Your task to perform on an android device: Open Reddit.com Image 0: 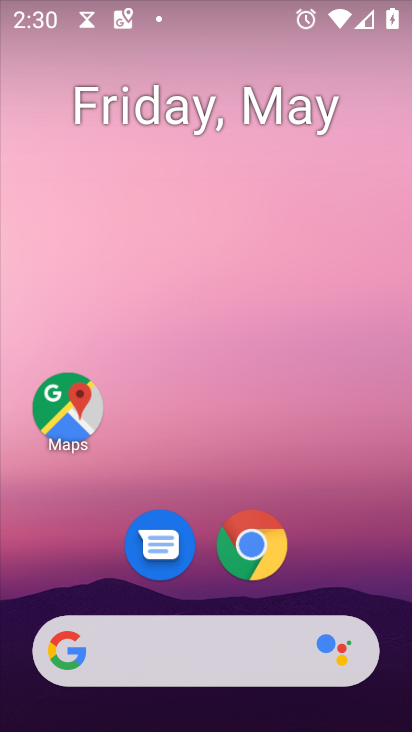
Step 0: click (257, 541)
Your task to perform on an android device: Open Reddit.com Image 1: 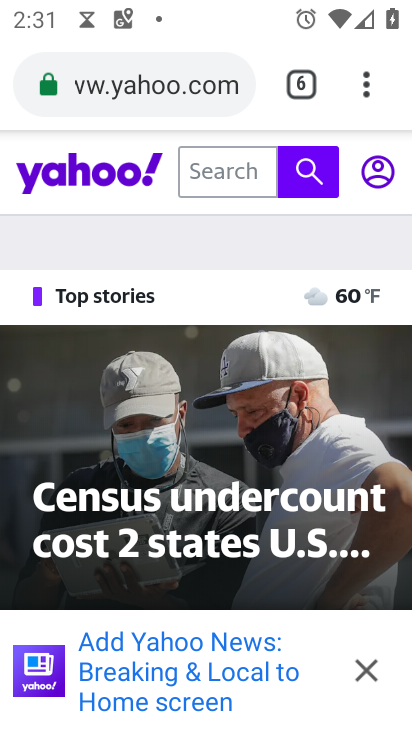
Step 1: click (304, 75)
Your task to perform on an android device: Open Reddit.com Image 2: 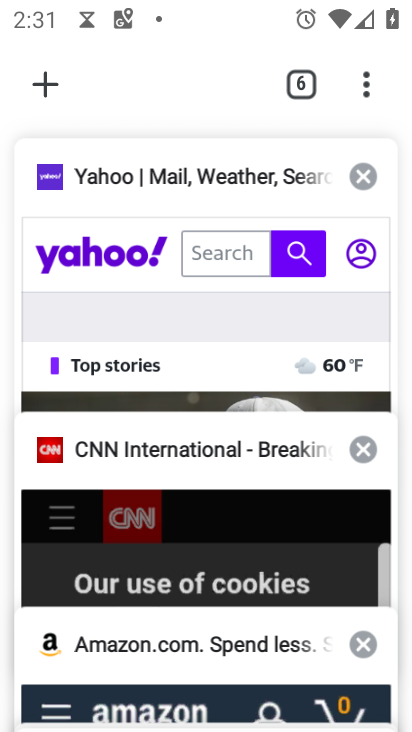
Step 2: click (50, 83)
Your task to perform on an android device: Open Reddit.com Image 3: 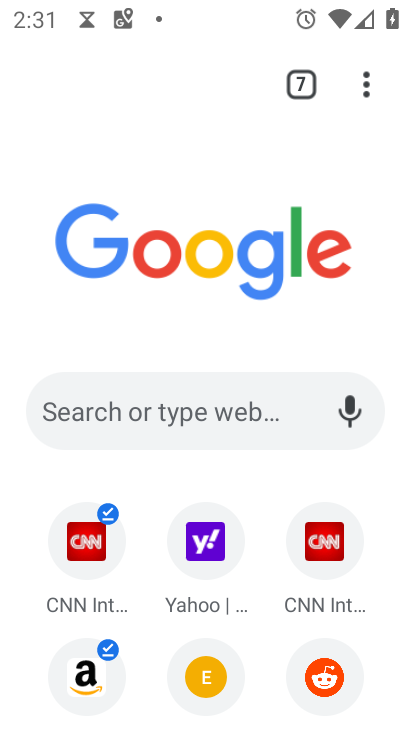
Step 3: click (212, 415)
Your task to perform on an android device: Open Reddit.com Image 4: 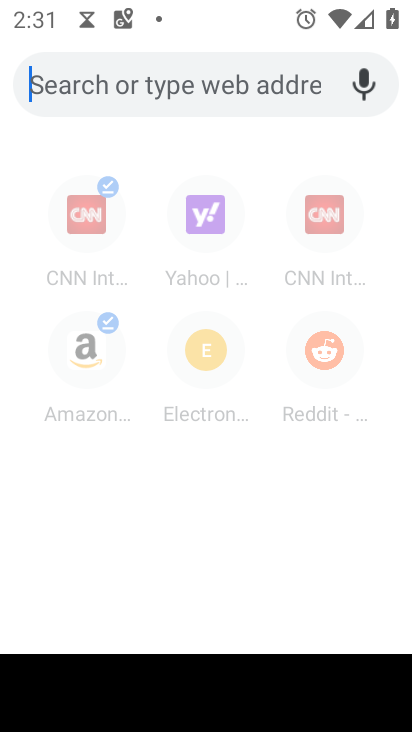
Step 4: type "Reddit.com"
Your task to perform on an android device: Open Reddit.com Image 5: 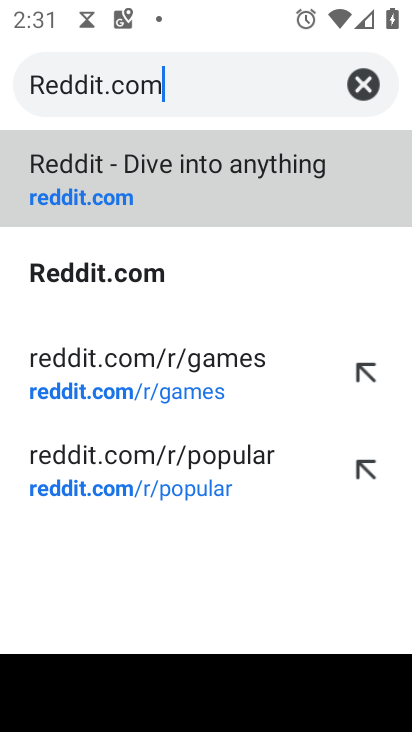
Step 5: click (143, 185)
Your task to perform on an android device: Open Reddit.com Image 6: 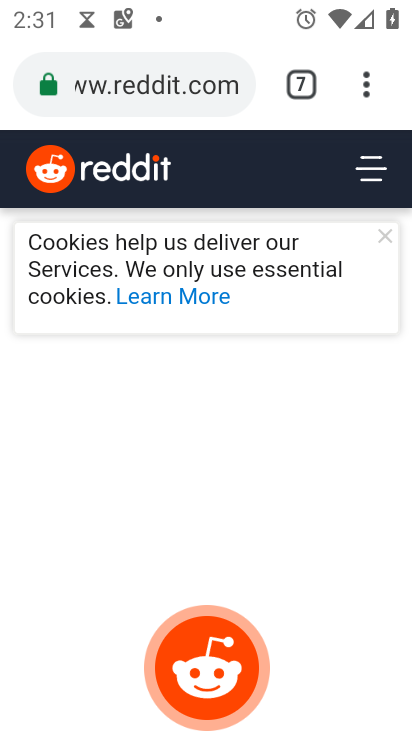
Step 6: task complete